Your task to perform on an android device: check battery use Image 0: 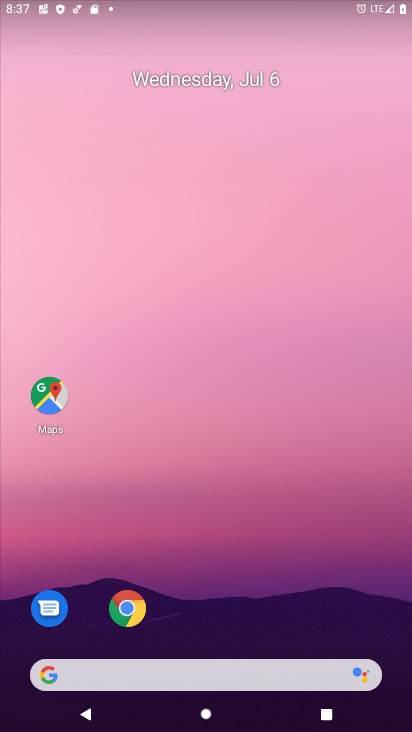
Step 0: drag from (335, 650) to (308, 6)
Your task to perform on an android device: check battery use Image 1: 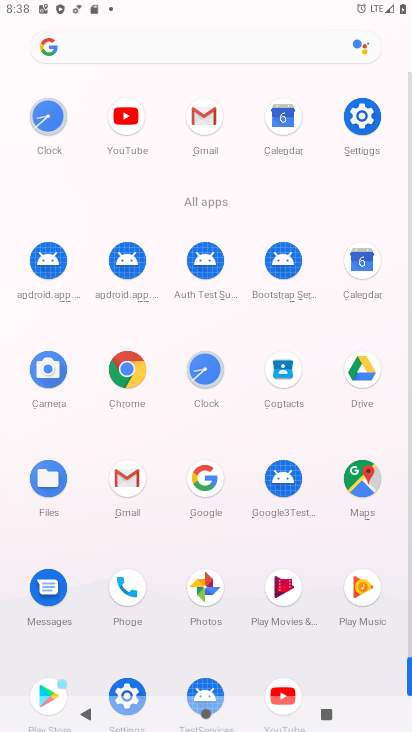
Step 1: click (353, 131)
Your task to perform on an android device: check battery use Image 2: 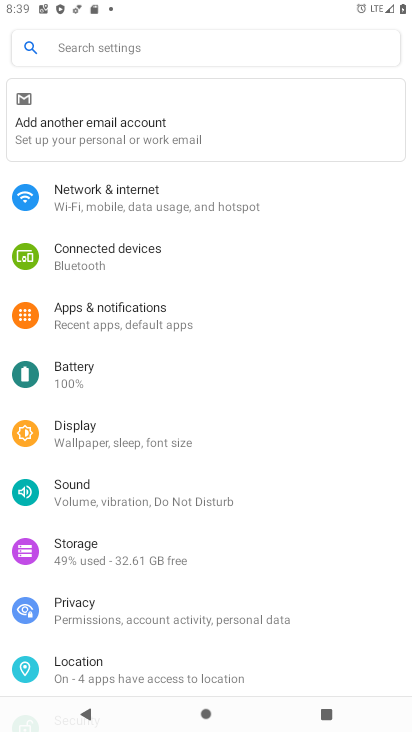
Step 2: drag from (352, 149) to (394, 494)
Your task to perform on an android device: check battery use Image 3: 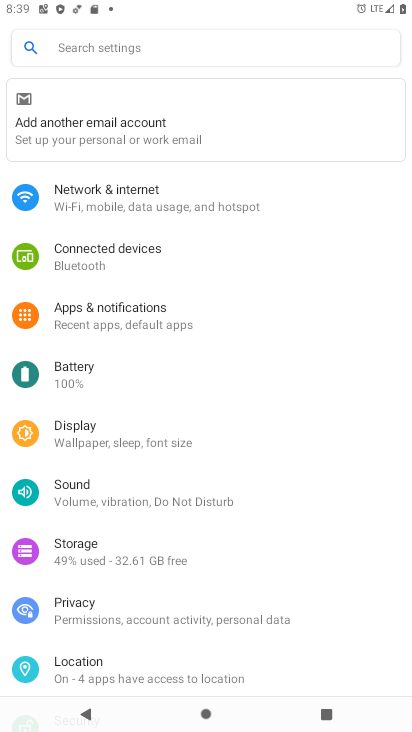
Step 3: click (156, 383)
Your task to perform on an android device: check battery use Image 4: 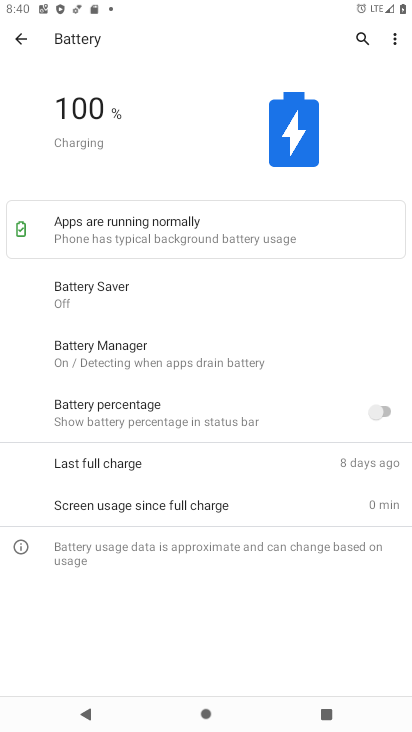
Step 4: click (391, 37)
Your task to perform on an android device: check battery use Image 5: 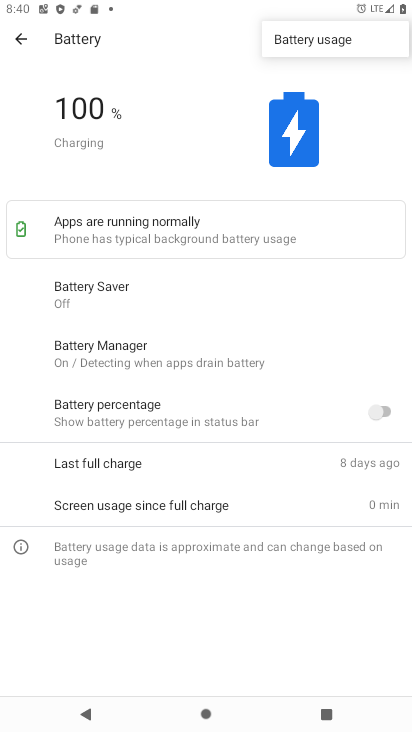
Step 5: click (248, 31)
Your task to perform on an android device: check battery use Image 6: 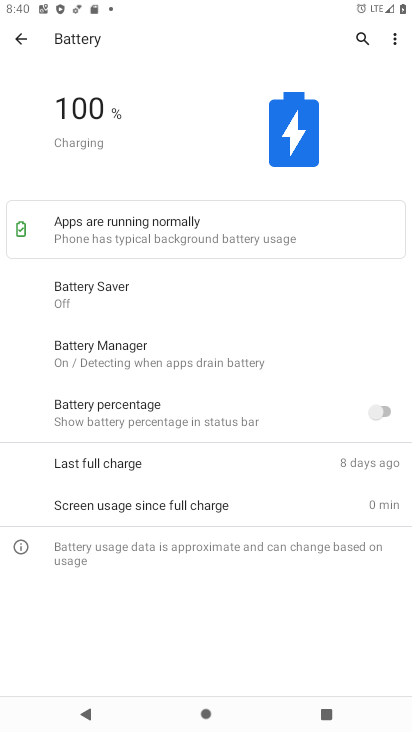
Step 6: click (298, 31)
Your task to perform on an android device: check battery use Image 7: 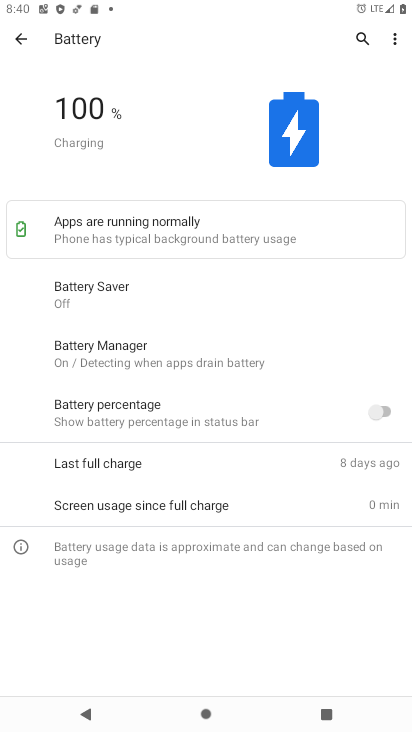
Step 7: click (399, 36)
Your task to perform on an android device: check battery use Image 8: 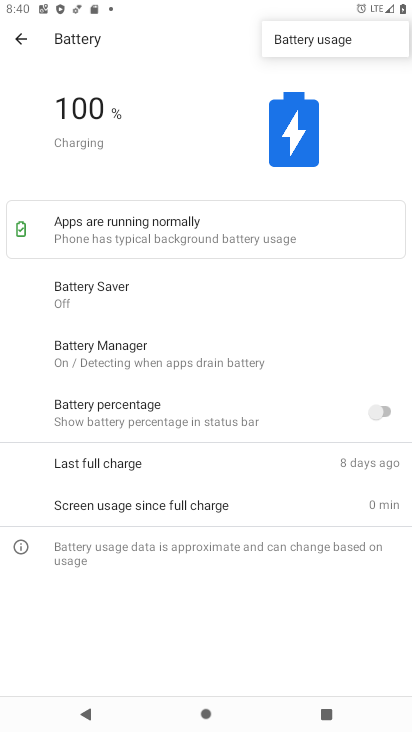
Step 8: click (323, 35)
Your task to perform on an android device: check battery use Image 9: 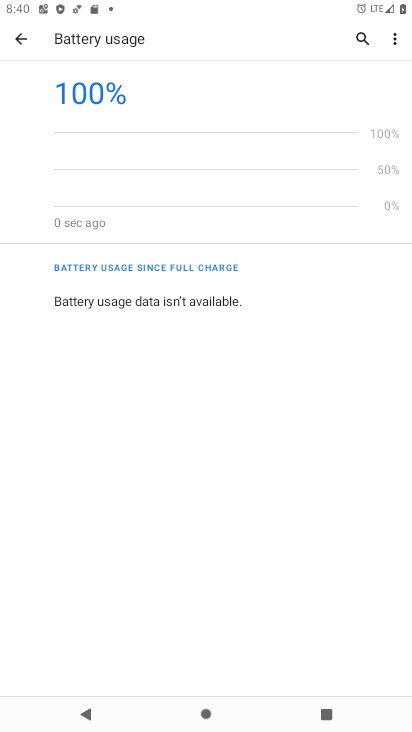
Step 9: task complete